Your task to perform on an android device: Go to Yahoo.com Image 0: 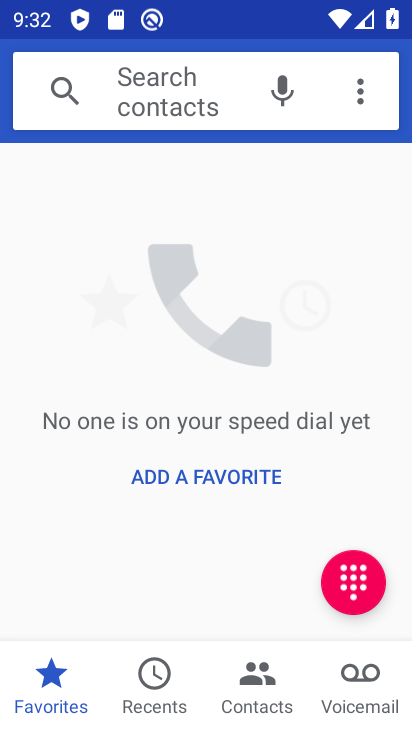
Step 0: press home button
Your task to perform on an android device: Go to Yahoo.com Image 1: 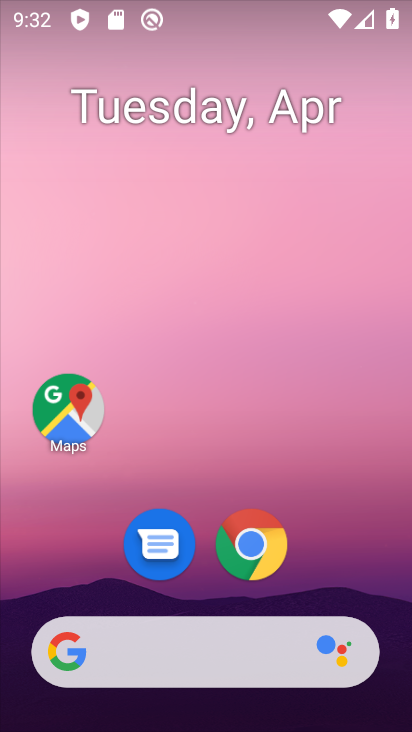
Step 1: click (271, 553)
Your task to perform on an android device: Go to Yahoo.com Image 2: 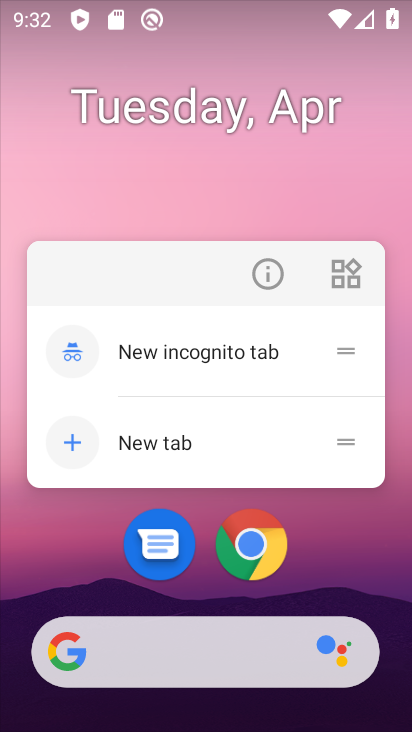
Step 2: click (251, 557)
Your task to perform on an android device: Go to Yahoo.com Image 3: 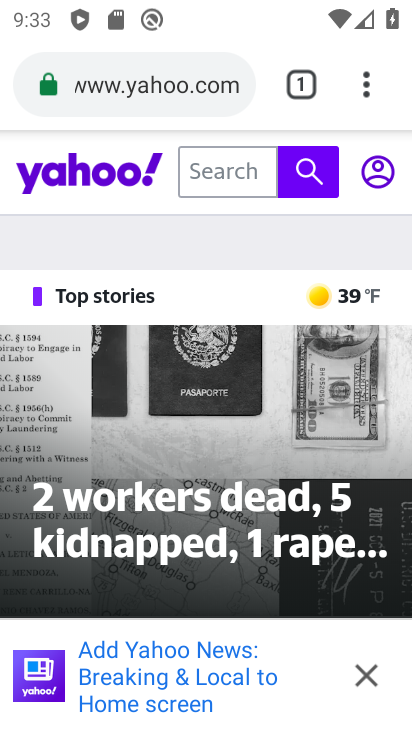
Step 3: task complete